Your task to perform on an android device: Go to sound settings Image 0: 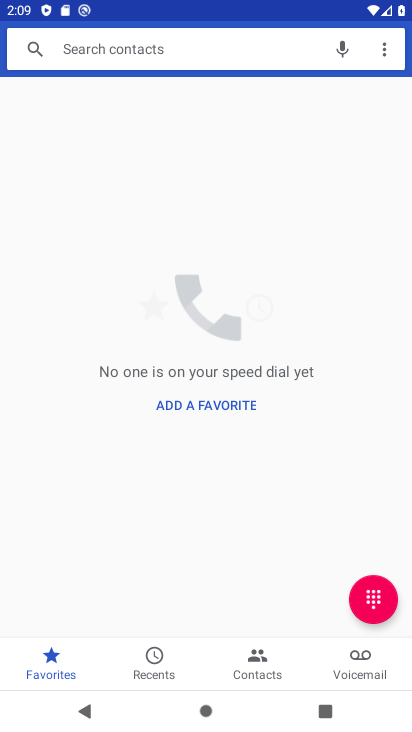
Step 0: press home button
Your task to perform on an android device: Go to sound settings Image 1: 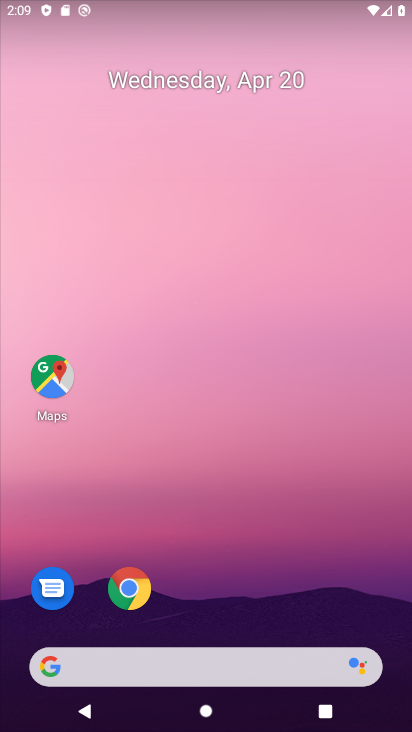
Step 1: drag from (213, 514) to (246, 68)
Your task to perform on an android device: Go to sound settings Image 2: 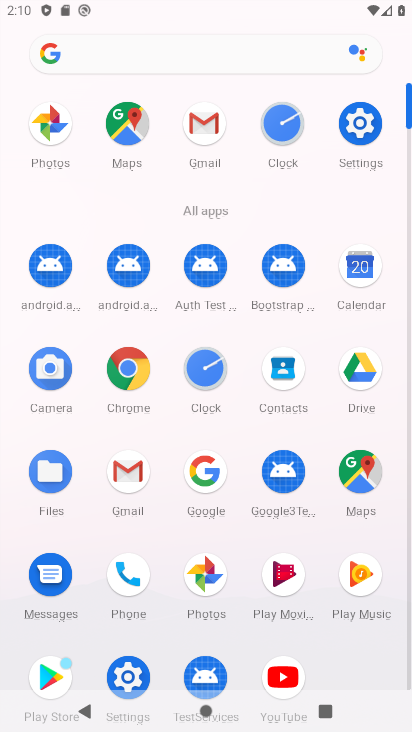
Step 2: click (131, 669)
Your task to perform on an android device: Go to sound settings Image 3: 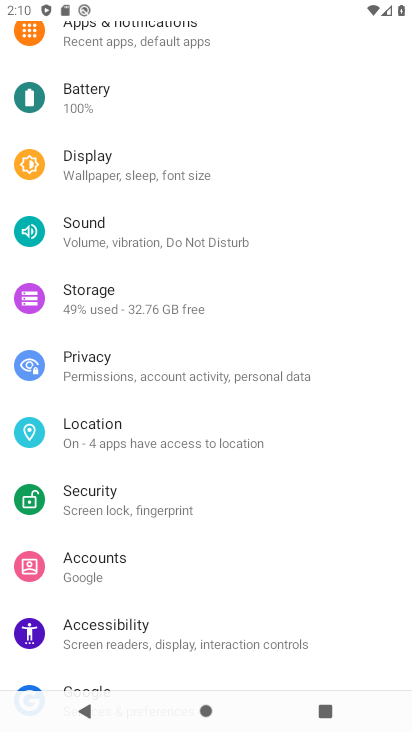
Step 3: click (147, 244)
Your task to perform on an android device: Go to sound settings Image 4: 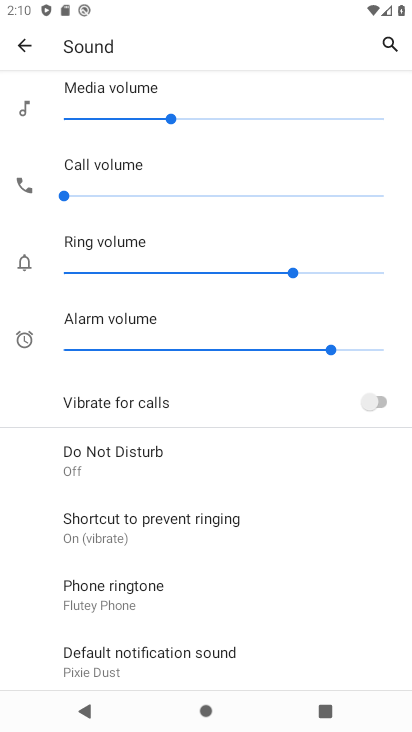
Step 4: task complete